Your task to perform on an android device: Go to CNN.com Image 0: 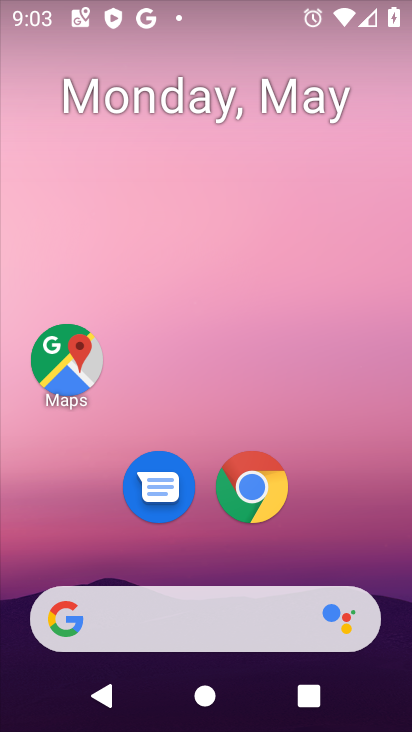
Step 0: click (195, 611)
Your task to perform on an android device: Go to CNN.com Image 1: 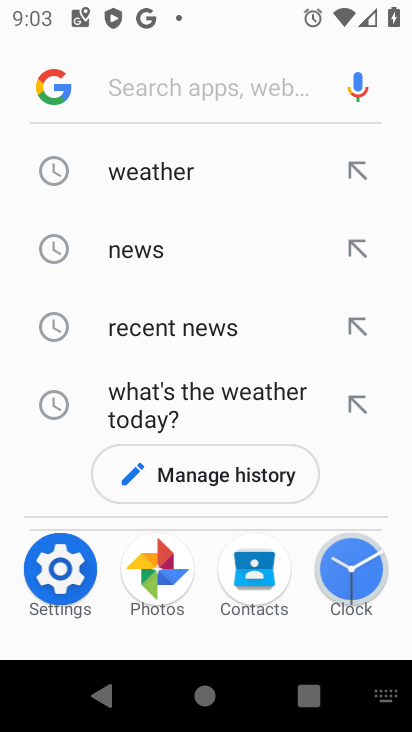
Step 1: type "cnn.com"
Your task to perform on an android device: Go to CNN.com Image 2: 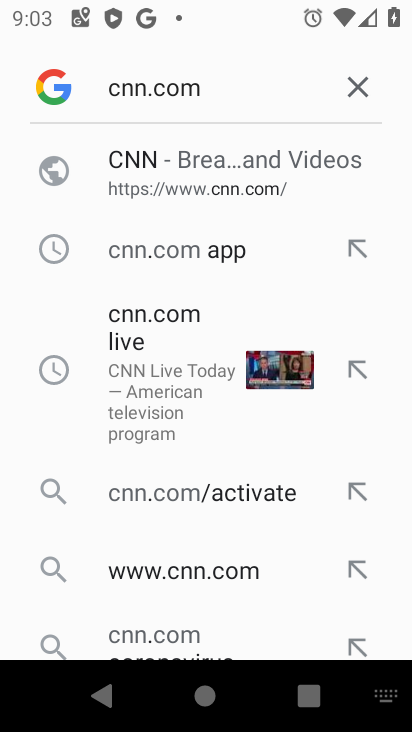
Step 2: click (175, 168)
Your task to perform on an android device: Go to CNN.com Image 3: 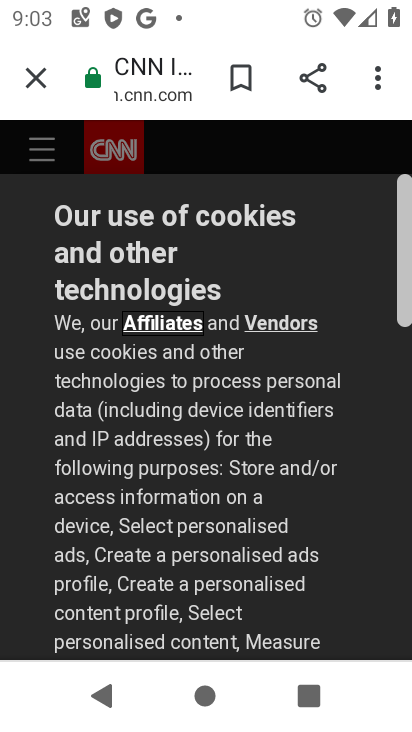
Step 3: task complete